Your task to perform on an android device: turn off javascript in the chrome app Image 0: 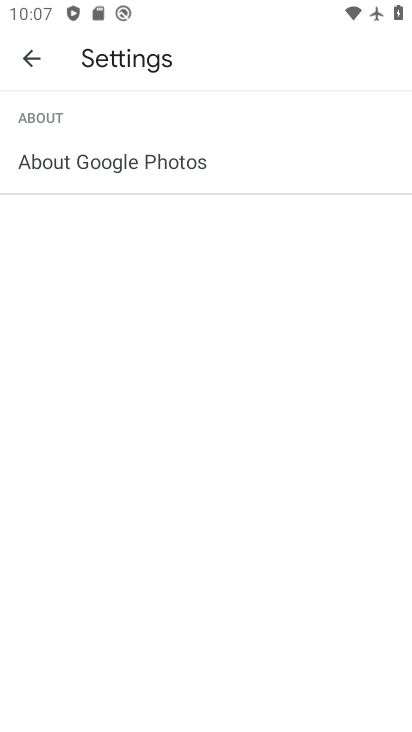
Step 0: press home button
Your task to perform on an android device: turn off javascript in the chrome app Image 1: 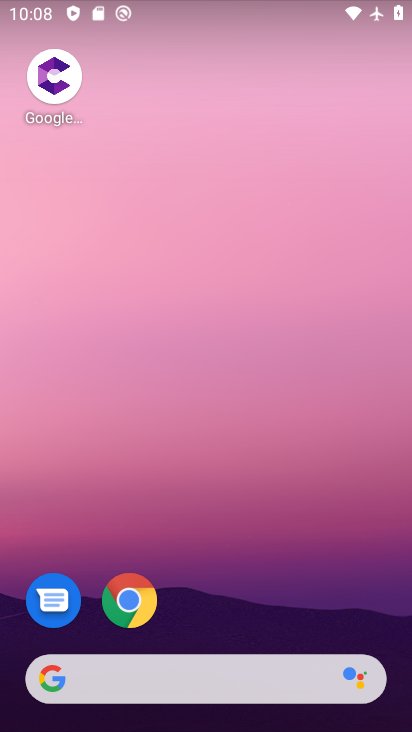
Step 1: click (125, 601)
Your task to perform on an android device: turn off javascript in the chrome app Image 2: 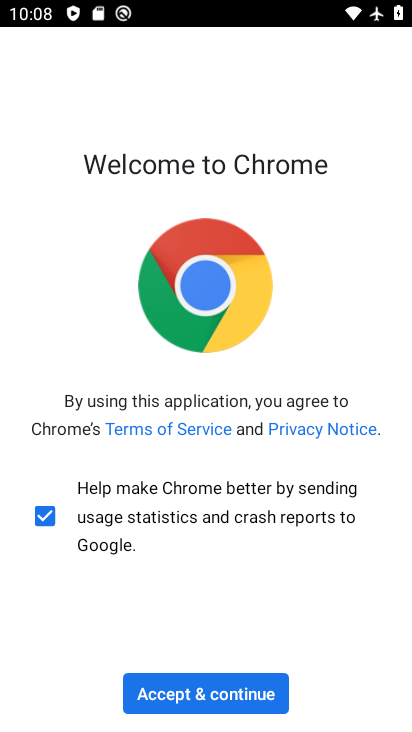
Step 2: click (199, 690)
Your task to perform on an android device: turn off javascript in the chrome app Image 3: 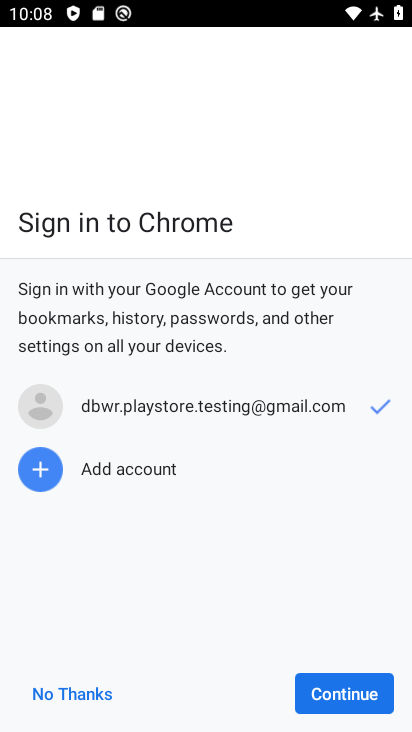
Step 3: click (335, 685)
Your task to perform on an android device: turn off javascript in the chrome app Image 4: 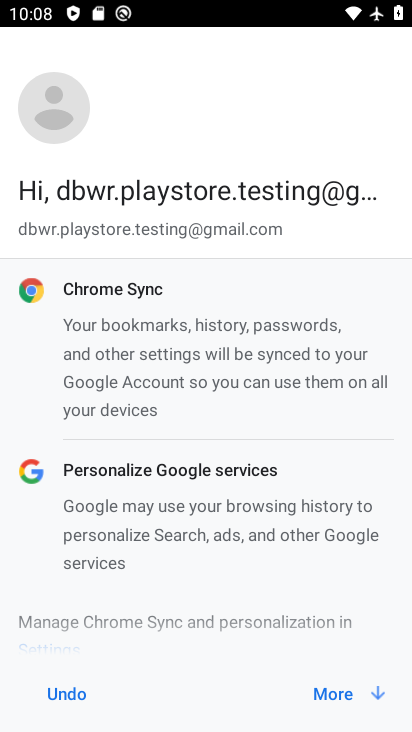
Step 4: click (335, 693)
Your task to perform on an android device: turn off javascript in the chrome app Image 5: 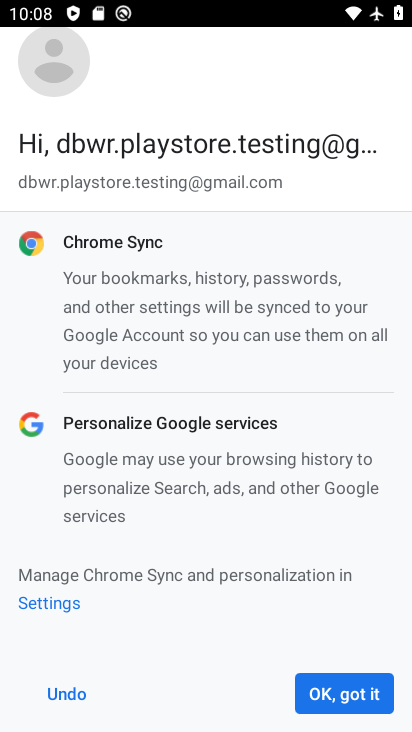
Step 5: click (347, 699)
Your task to perform on an android device: turn off javascript in the chrome app Image 6: 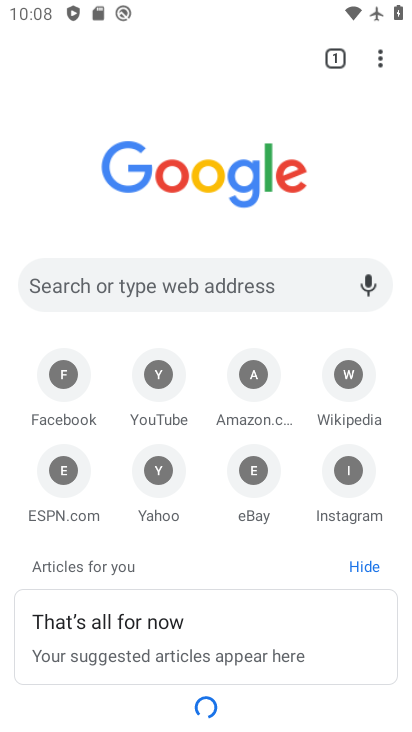
Step 6: drag from (382, 62) to (237, 493)
Your task to perform on an android device: turn off javascript in the chrome app Image 7: 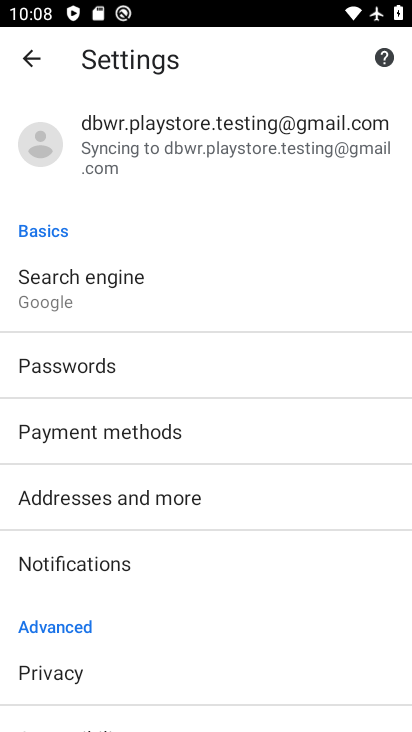
Step 7: drag from (172, 652) to (302, 173)
Your task to perform on an android device: turn off javascript in the chrome app Image 8: 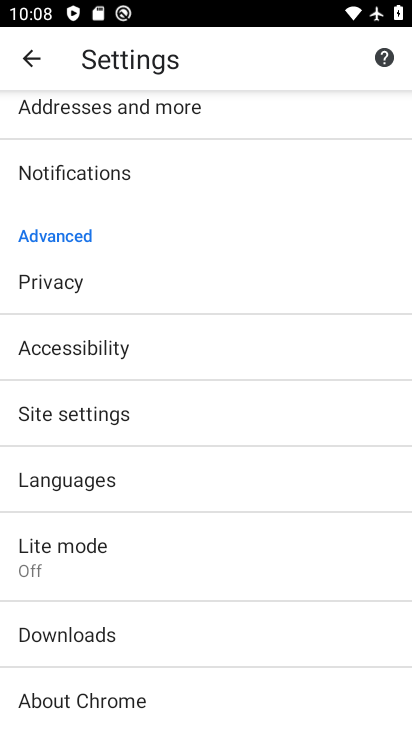
Step 8: click (75, 410)
Your task to perform on an android device: turn off javascript in the chrome app Image 9: 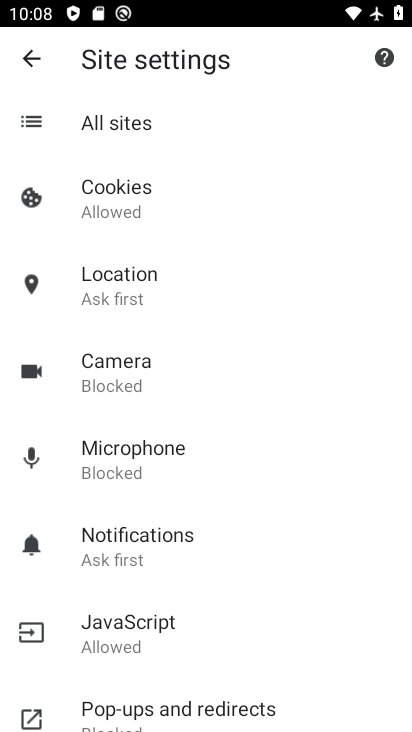
Step 9: click (142, 624)
Your task to perform on an android device: turn off javascript in the chrome app Image 10: 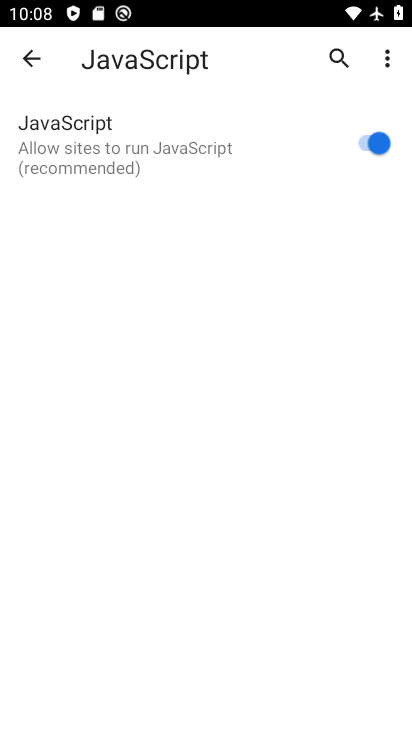
Step 10: click (368, 136)
Your task to perform on an android device: turn off javascript in the chrome app Image 11: 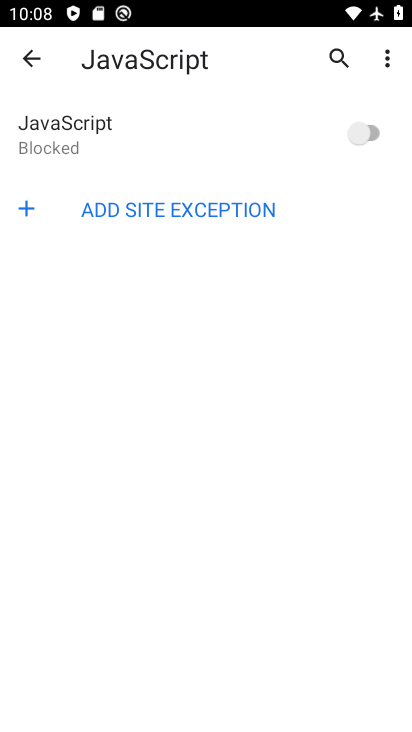
Step 11: task complete